Your task to perform on an android device: check the backup settings in the google photos Image 0: 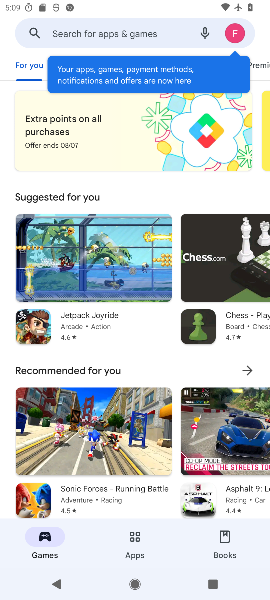
Step 0: press home button
Your task to perform on an android device: check the backup settings in the google photos Image 1: 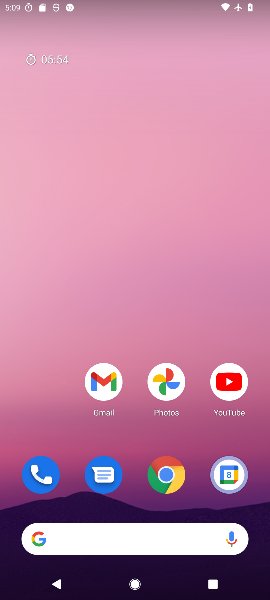
Step 1: drag from (59, 431) to (74, 142)
Your task to perform on an android device: check the backup settings in the google photos Image 2: 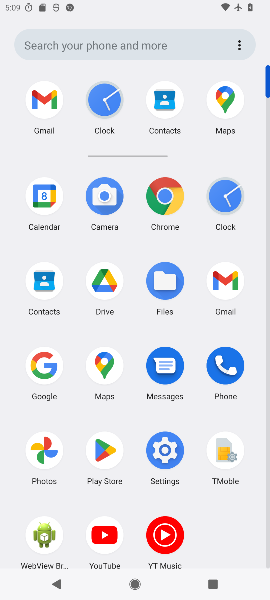
Step 2: click (43, 452)
Your task to perform on an android device: check the backup settings in the google photos Image 3: 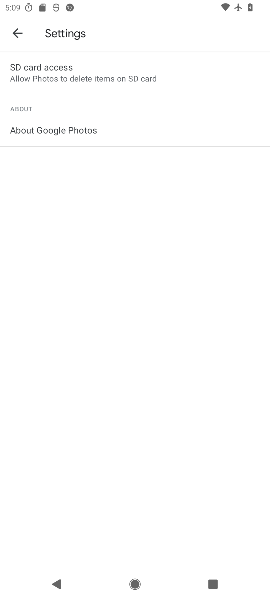
Step 3: press back button
Your task to perform on an android device: check the backup settings in the google photos Image 4: 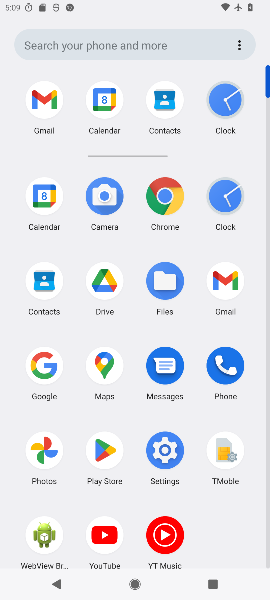
Step 4: click (45, 451)
Your task to perform on an android device: check the backup settings in the google photos Image 5: 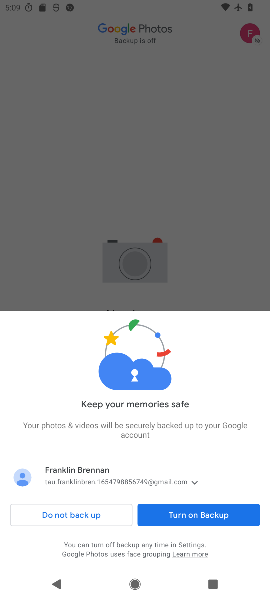
Step 5: click (58, 514)
Your task to perform on an android device: check the backup settings in the google photos Image 6: 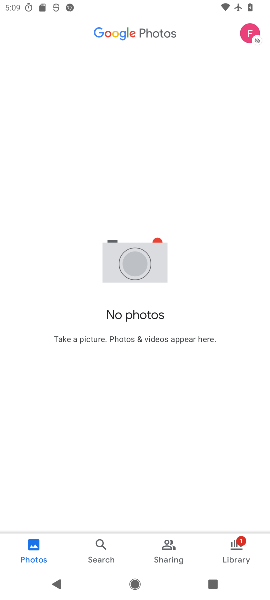
Step 6: click (252, 32)
Your task to perform on an android device: check the backup settings in the google photos Image 7: 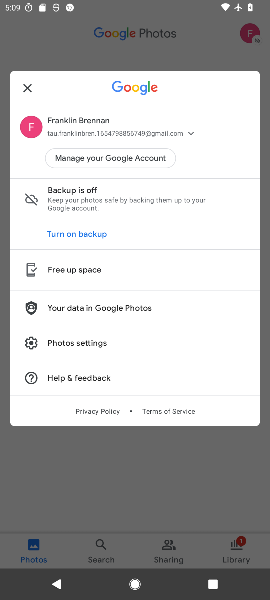
Step 7: click (100, 341)
Your task to perform on an android device: check the backup settings in the google photos Image 8: 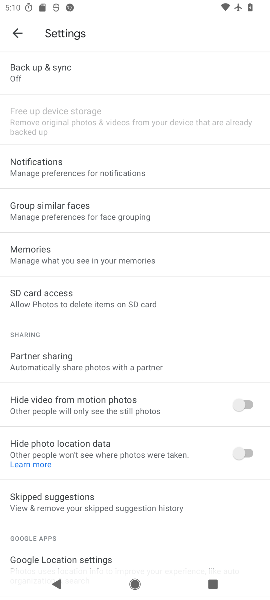
Step 8: click (84, 84)
Your task to perform on an android device: check the backup settings in the google photos Image 9: 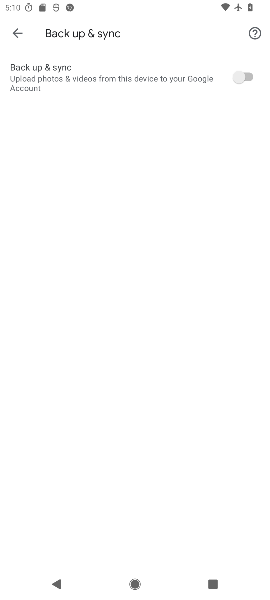
Step 9: click (83, 83)
Your task to perform on an android device: check the backup settings in the google photos Image 10: 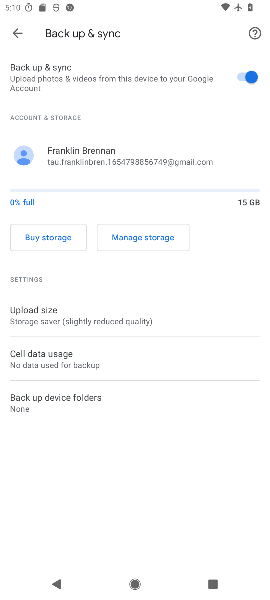
Step 10: task complete